Your task to perform on an android device: Open calendar and show me the second week of next month Image 0: 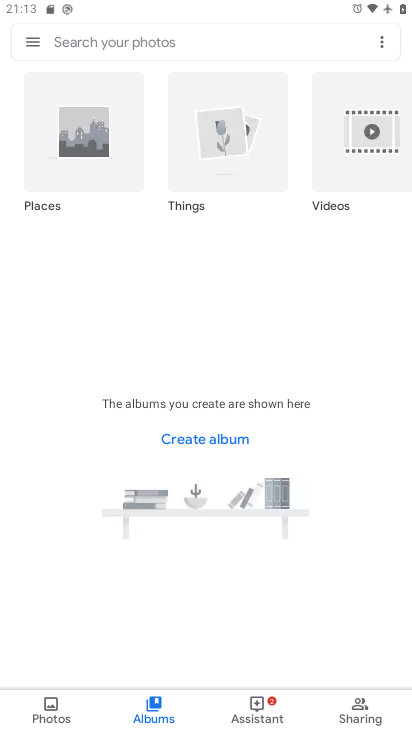
Step 0: press home button
Your task to perform on an android device: Open calendar and show me the second week of next month Image 1: 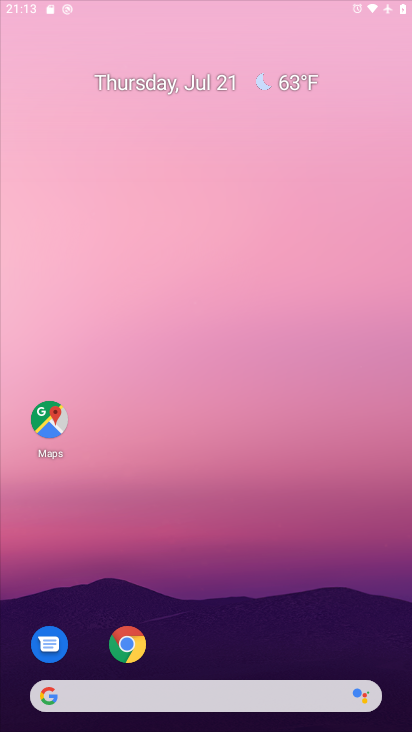
Step 1: drag from (219, 619) to (217, 266)
Your task to perform on an android device: Open calendar and show me the second week of next month Image 2: 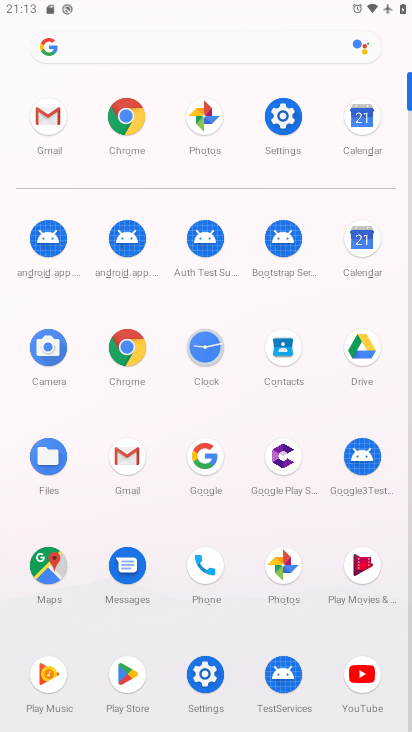
Step 2: click (370, 112)
Your task to perform on an android device: Open calendar and show me the second week of next month Image 3: 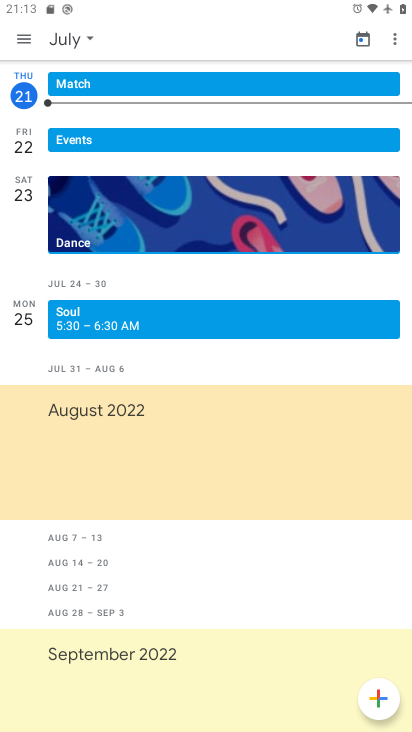
Step 3: click (24, 37)
Your task to perform on an android device: Open calendar and show me the second week of next month Image 4: 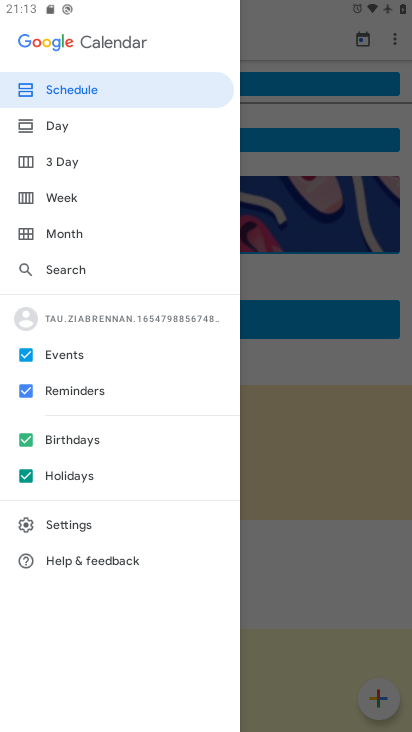
Step 4: click (75, 200)
Your task to perform on an android device: Open calendar and show me the second week of next month Image 5: 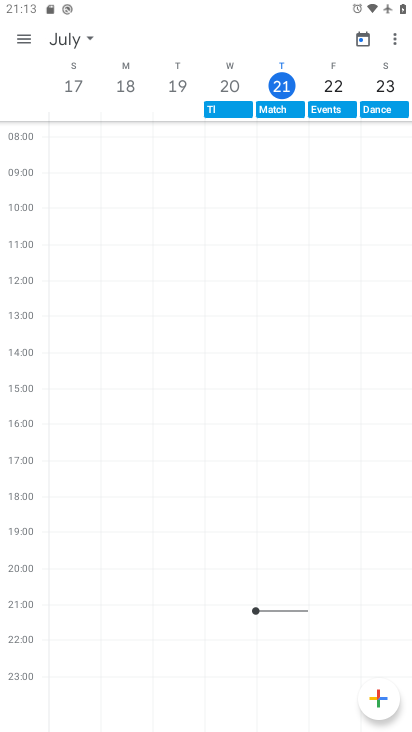
Step 5: task complete